Your task to perform on an android device: check data usage Image 0: 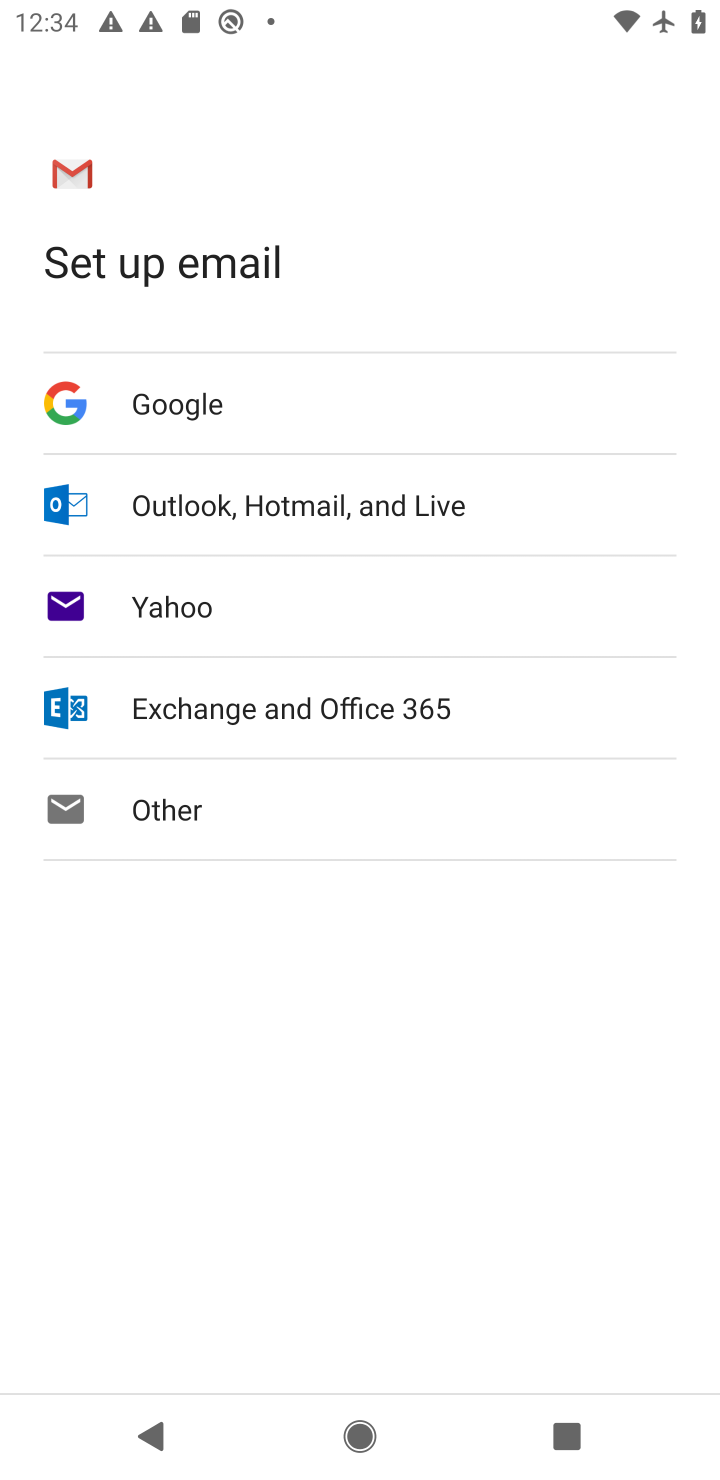
Step 0: task complete